Your task to perform on an android device: Open Android settings Image 0: 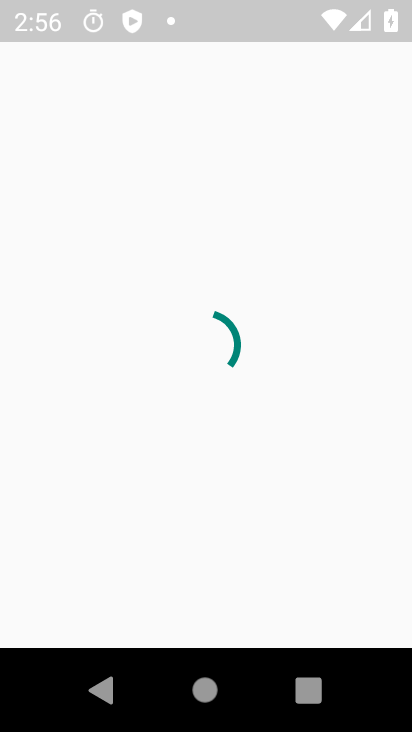
Step 0: press home button
Your task to perform on an android device: Open Android settings Image 1: 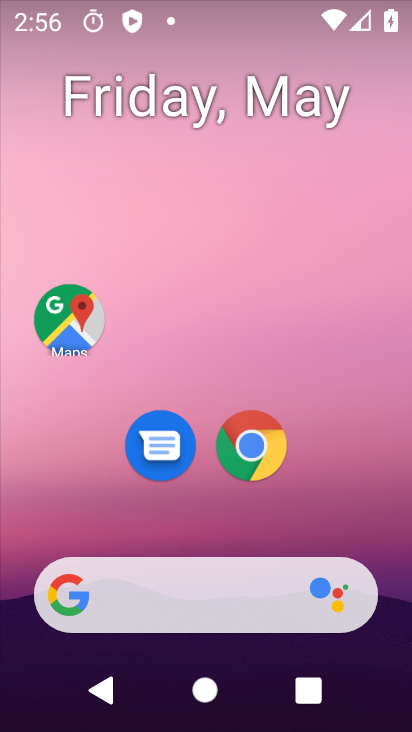
Step 1: drag from (192, 619) to (194, 32)
Your task to perform on an android device: Open Android settings Image 2: 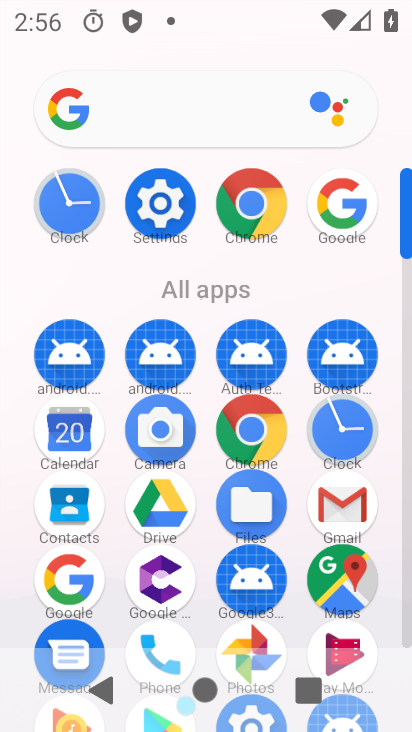
Step 2: click (145, 208)
Your task to perform on an android device: Open Android settings Image 3: 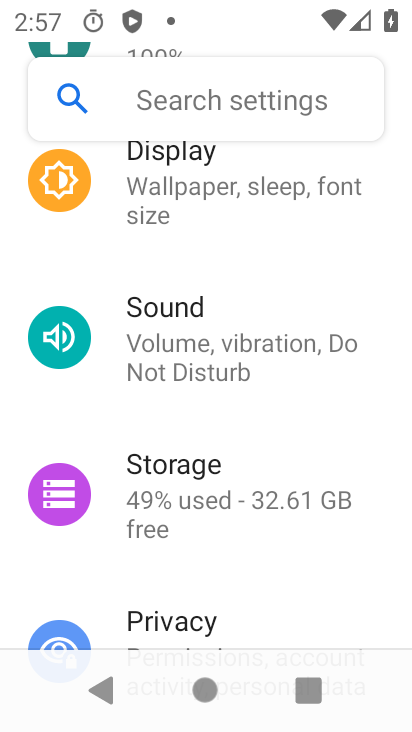
Step 3: drag from (110, 416) to (121, 149)
Your task to perform on an android device: Open Android settings Image 4: 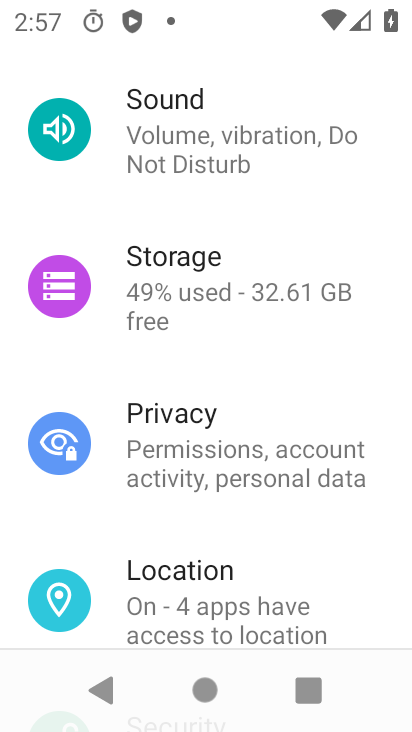
Step 4: drag from (146, 390) to (148, 170)
Your task to perform on an android device: Open Android settings Image 5: 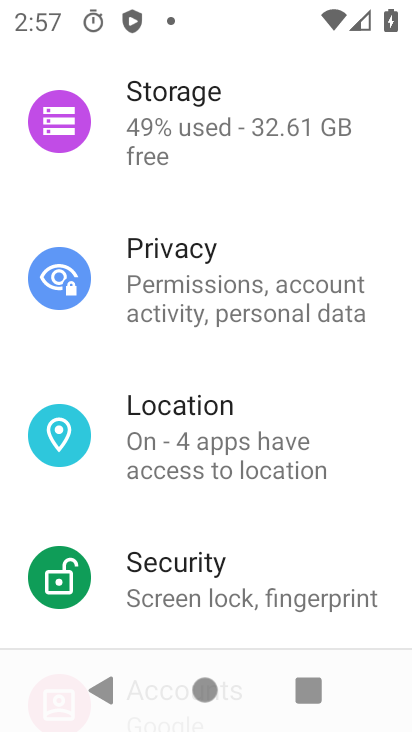
Step 5: drag from (153, 502) to (157, 212)
Your task to perform on an android device: Open Android settings Image 6: 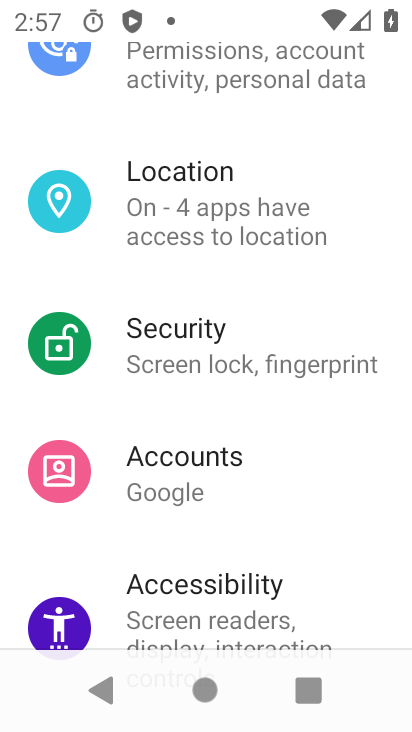
Step 6: drag from (186, 561) to (133, 217)
Your task to perform on an android device: Open Android settings Image 7: 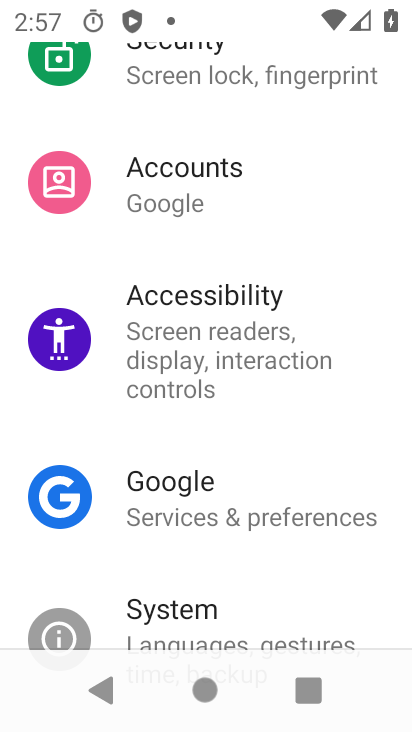
Step 7: drag from (204, 555) to (158, 300)
Your task to perform on an android device: Open Android settings Image 8: 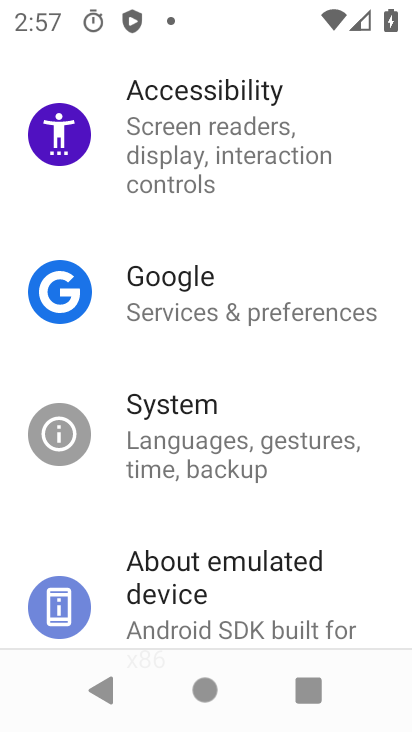
Step 8: drag from (200, 614) to (186, 410)
Your task to perform on an android device: Open Android settings Image 9: 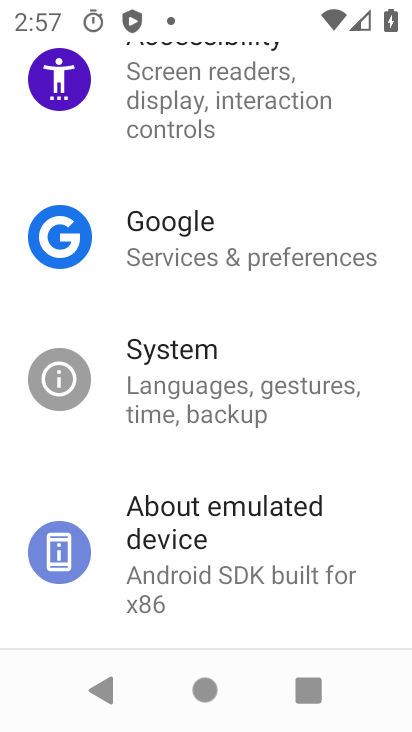
Step 9: click (211, 584)
Your task to perform on an android device: Open Android settings Image 10: 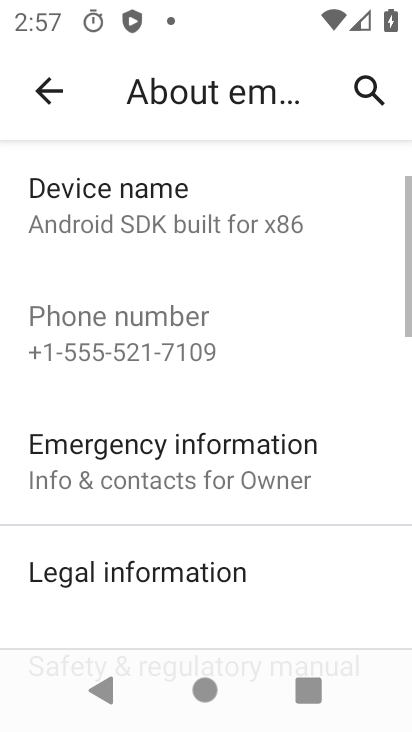
Step 10: drag from (210, 571) to (202, 354)
Your task to perform on an android device: Open Android settings Image 11: 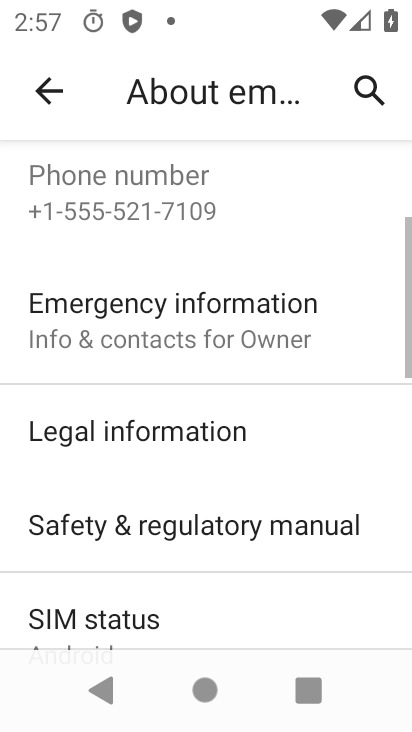
Step 11: drag from (180, 506) to (176, 344)
Your task to perform on an android device: Open Android settings Image 12: 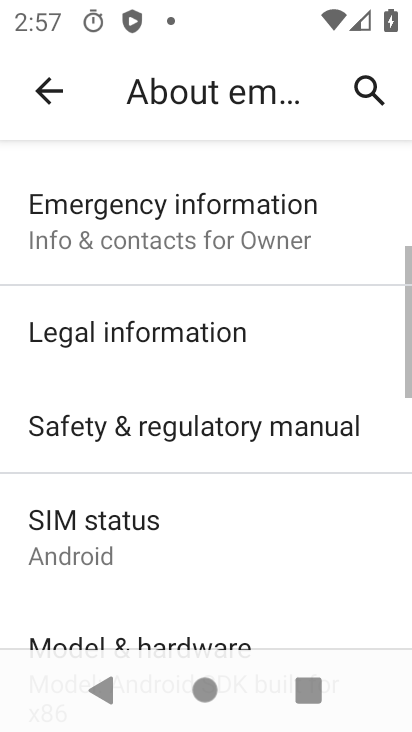
Step 12: drag from (163, 464) to (157, 234)
Your task to perform on an android device: Open Android settings Image 13: 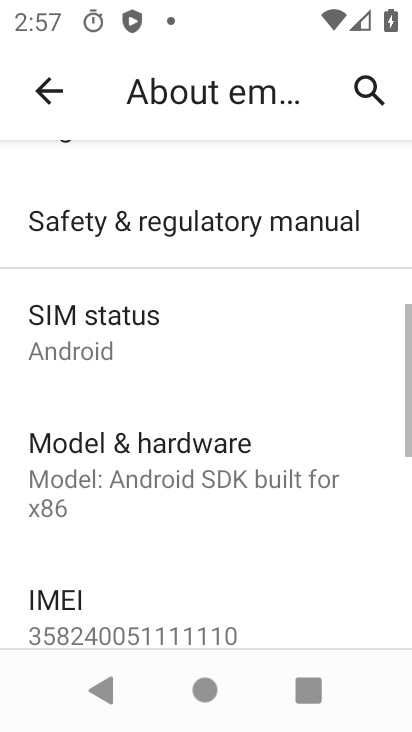
Step 13: drag from (135, 601) to (127, 147)
Your task to perform on an android device: Open Android settings Image 14: 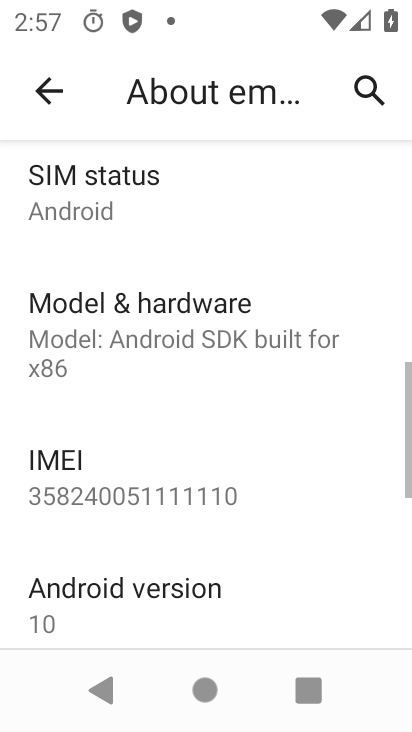
Step 14: click (188, 596)
Your task to perform on an android device: Open Android settings Image 15: 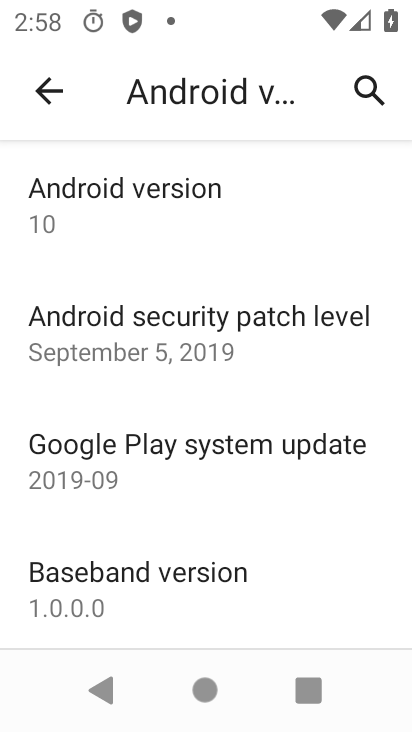
Step 15: task complete